Your task to perform on an android device: open sync settings in chrome Image 0: 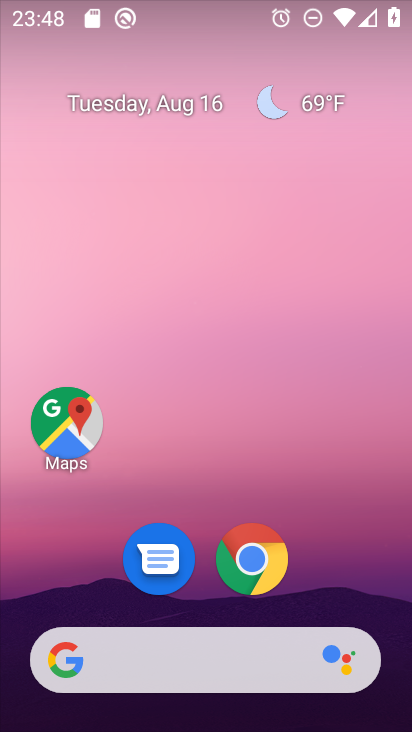
Step 0: drag from (182, 674) to (213, 194)
Your task to perform on an android device: open sync settings in chrome Image 1: 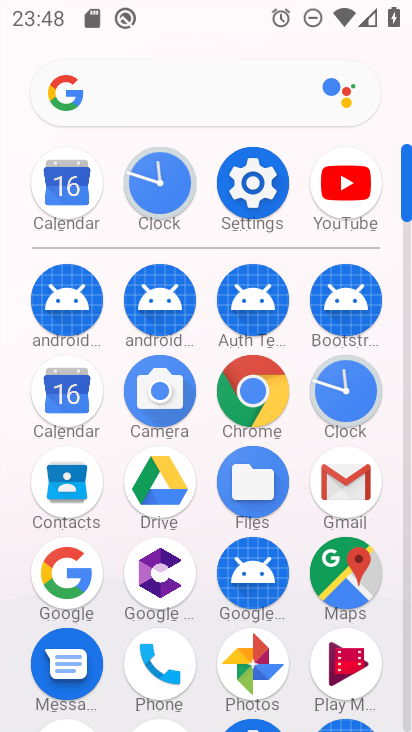
Step 1: click (254, 391)
Your task to perform on an android device: open sync settings in chrome Image 2: 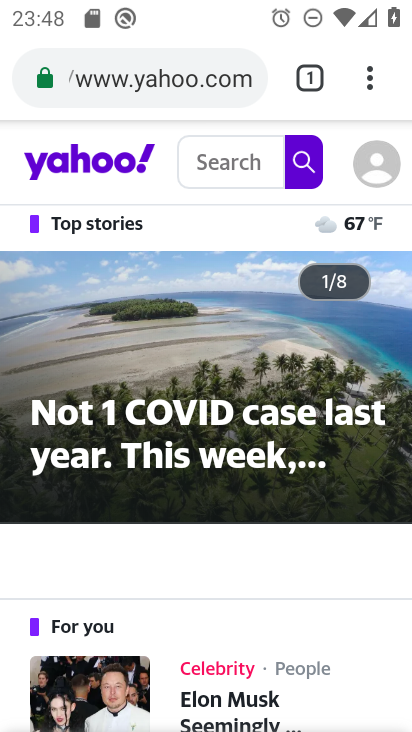
Step 2: click (398, 83)
Your task to perform on an android device: open sync settings in chrome Image 3: 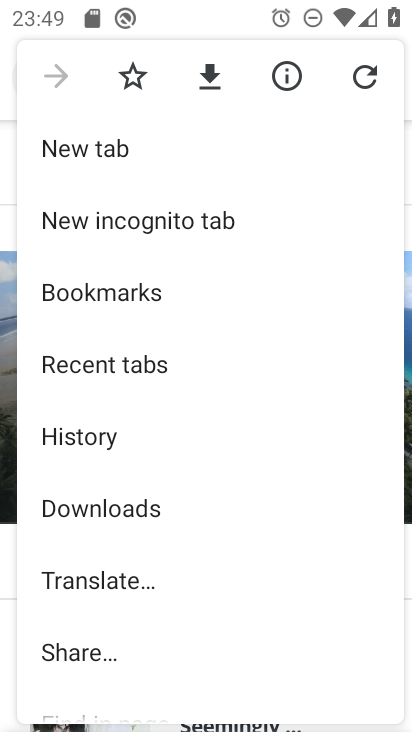
Step 3: drag from (140, 530) to (214, 429)
Your task to perform on an android device: open sync settings in chrome Image 4: 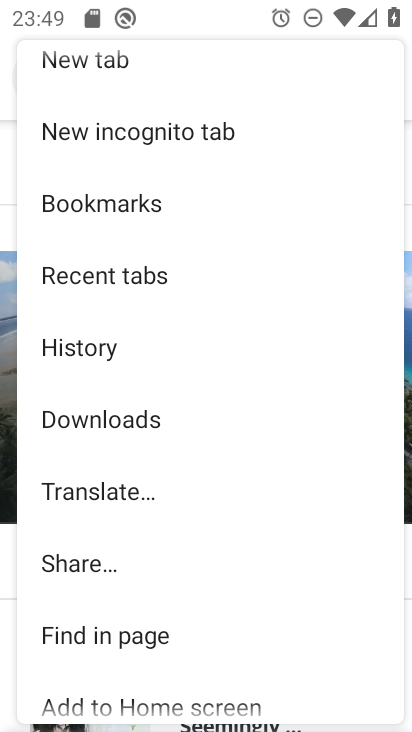
Step 4: drag from (144, 607) to (209, 518)
Your task to perform on an android device: open sync settings in chrome Image 5: 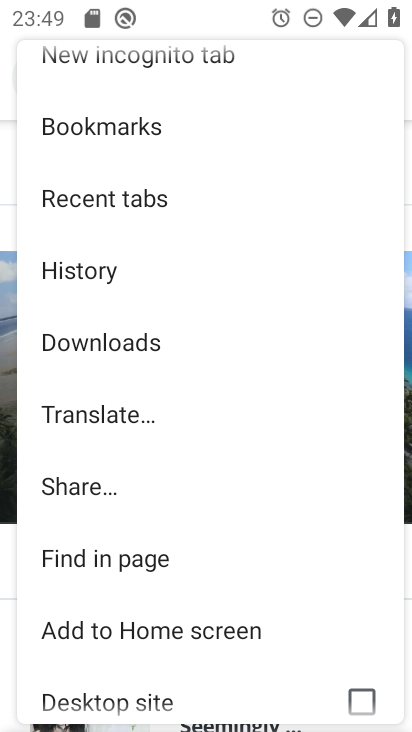
Step 5: drag from (118, 648) to (211, 534)
Your task to perform on an android device: open sync settings in chrome Image 6: 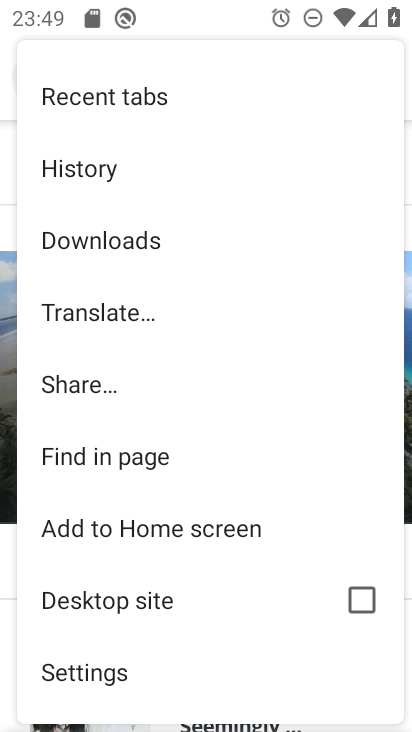
Step 6: drag from (141, 648) to (235, 501)
Your task to perform on an android device: open sync settings in chrome Image 7: 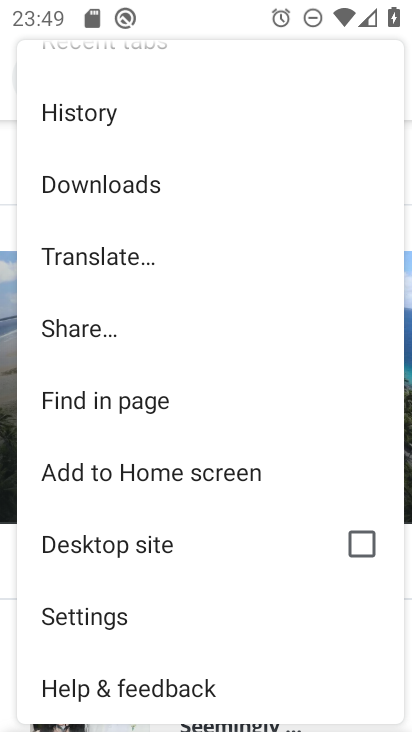
Step 7: click (99, 613)
Your task to perform on an android device: open sync settings in chrome Image 8: 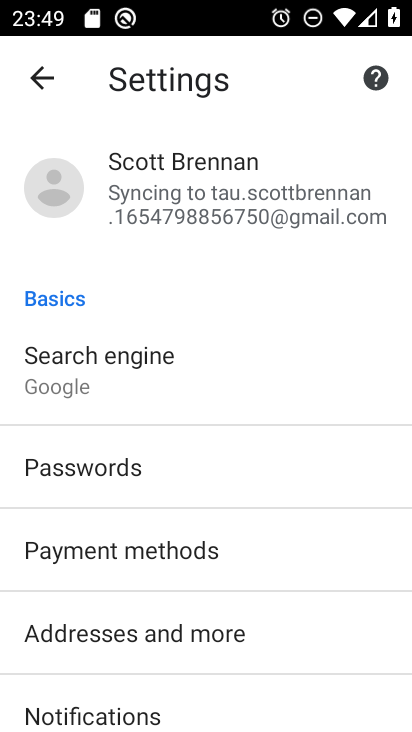
Step 8: drag from (112, 575) to (212, 453)
Your task to perform on an android device: open sync settings in chrome Image 9: 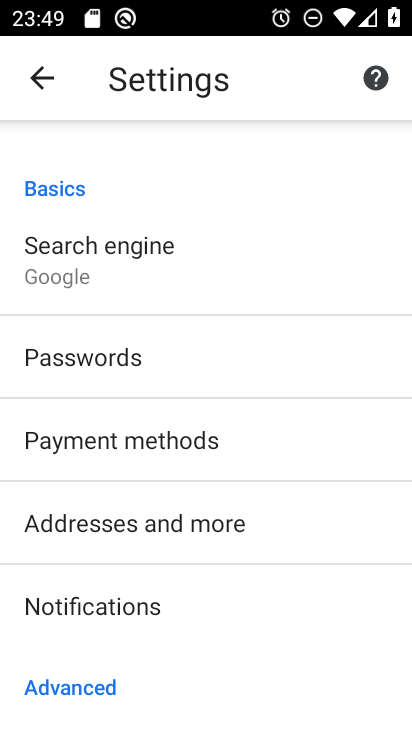
Step 9: drag from (137, 561) to (241, 440)
Your task to perform on an android device: open sync settings in chrome Image 10: 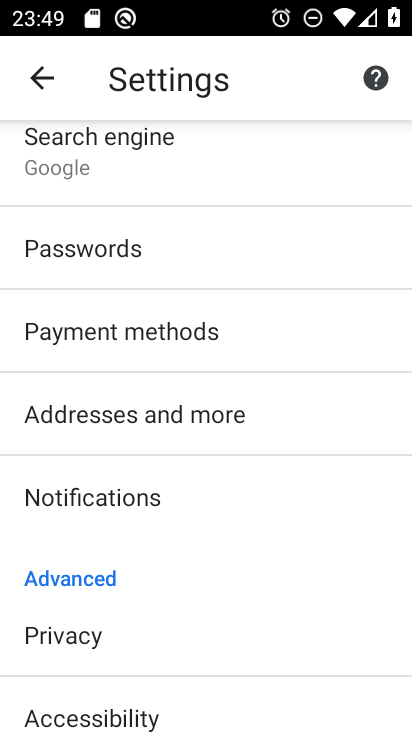
Step 10: drag from (135, 541) to (204, 448)
Your task to perform on an android device: open sync settings in chrome Image 11: 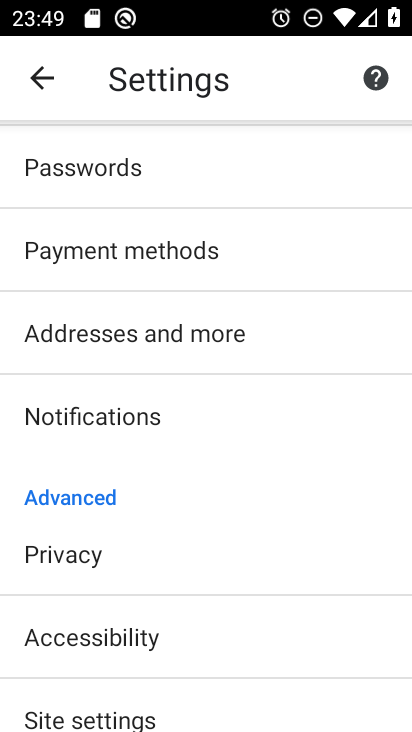
Step 11: drag from (107, 584) to (205, 477)
Your task to perform on an android device: open sync settings in chrome Image 12: 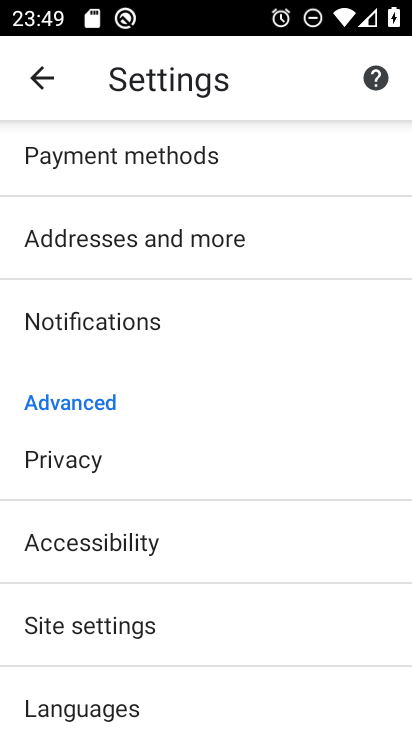
Step 12: drag from (133, 576) to (195, 485)
Your task to perform on an android device: open sync settings in chrome Image 13: 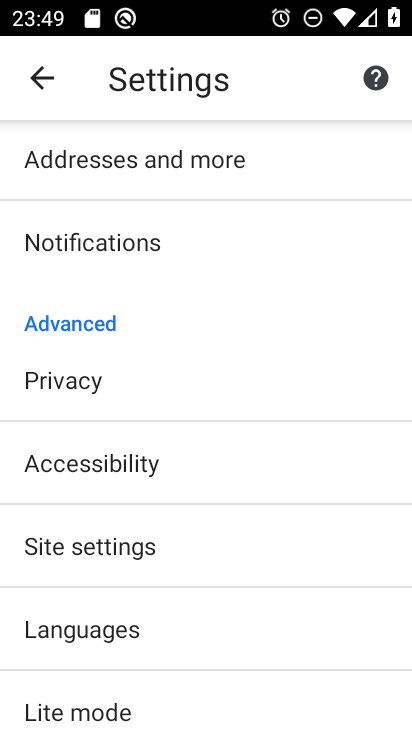
Step 13: click (131, 547)
Your task to perform on an android device: open sync settings in chrome Image 14: 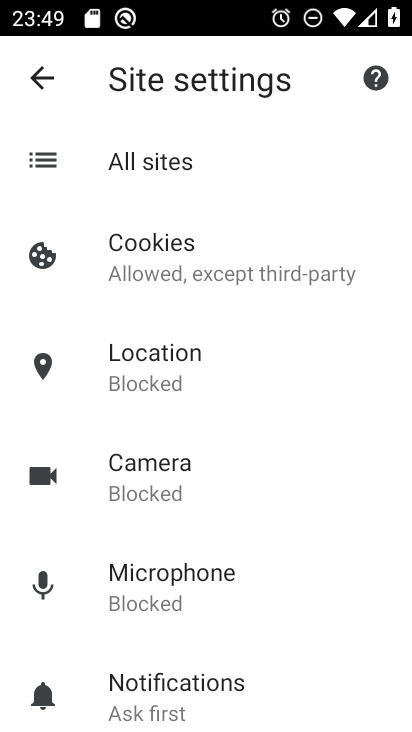
Step 14: drag from (168, 532) to (213, 415)
Your task to perform on an android device: open sync settings in chrome Image 15: 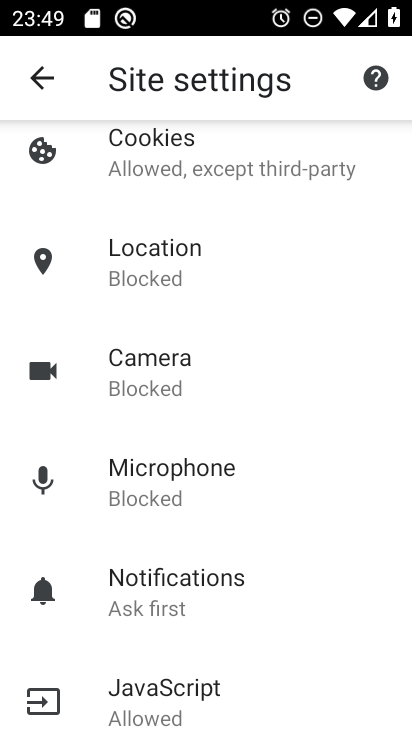
Step 15: drag from (161, 531) to (255, 393)
Your task to perform on an android device: open sync settings in chrome Image 16: 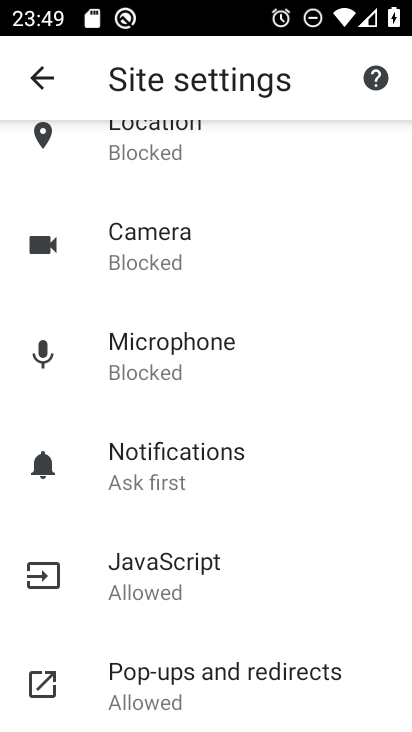
Step 16: drag from (185, 531) to (277, 413)
Your task to perform on an android device: open sync settings in chrome Image 17: 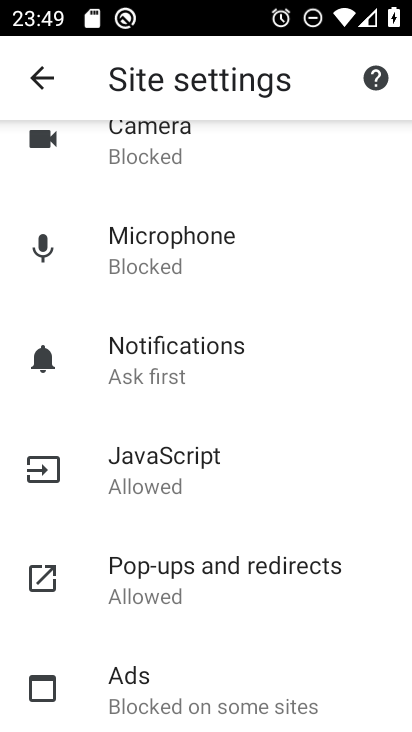
Step 17: drag from (193, 621) to (303, 491)
Your task to perform on an android device: open sync settings in chrome Image 18: 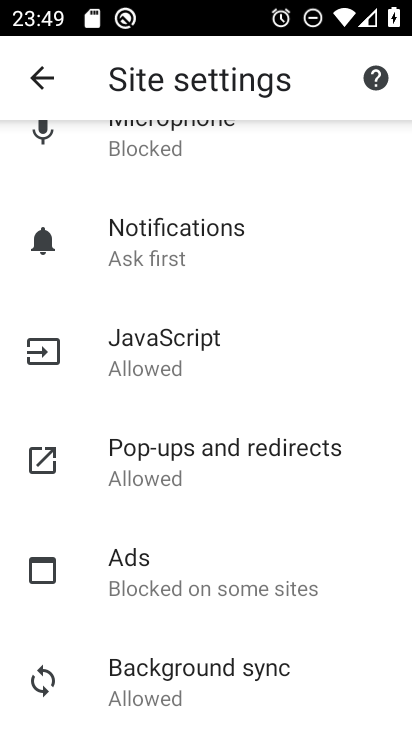
Step 18: click (205, 668)
Your task to perform on an android device: open sync settings in chrome Image 19: 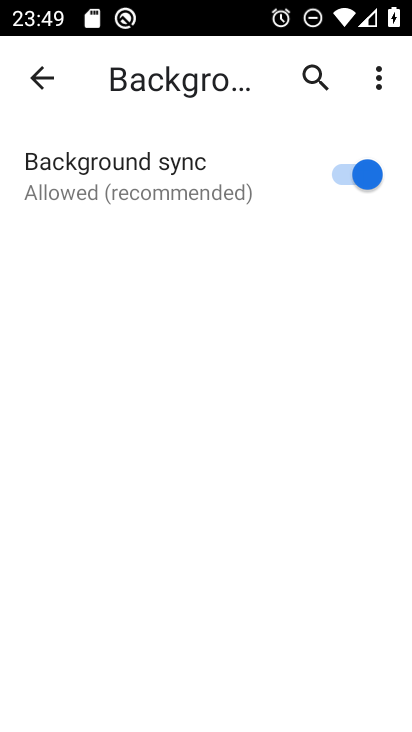
Step 19: task complete